Your task to perform on an android device: turn off sleep mode Image 0: 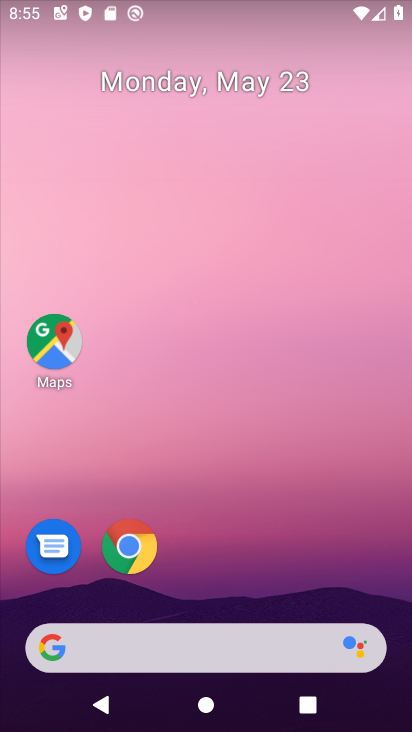
Step 0: drag from (392, 609) to (340, 21)
Your task to perform on an android device: turn off sleep mode Image 1: 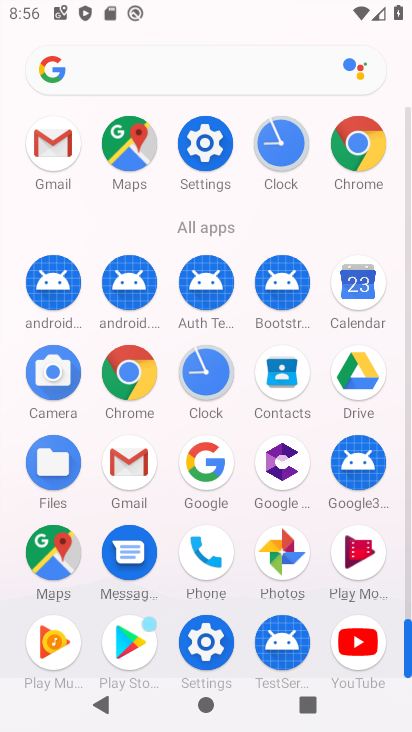
Step 1: click (208, 639)
Your task to perform on an android device: turn off sleep mode Image 2: 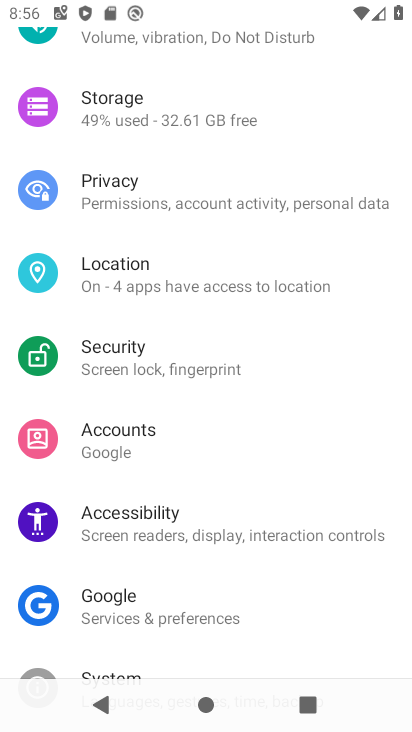
Step 2: drag from (325, 235) to (283, 562)
Your task to perform on an android device: turn off sleep mode Image 3: 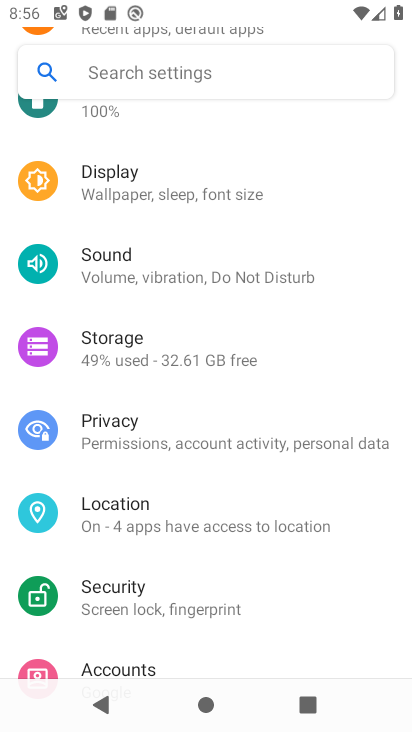
Step 3: click (141, 182)
Your task to perform on an android device: turn off sleep mode Image 4: 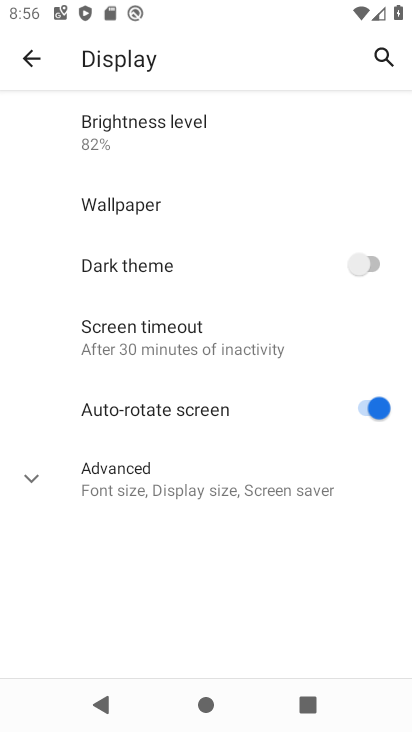
Step 4: click (28, 483)
Your task to perform on an android device: turn off sleep mode Image 5: 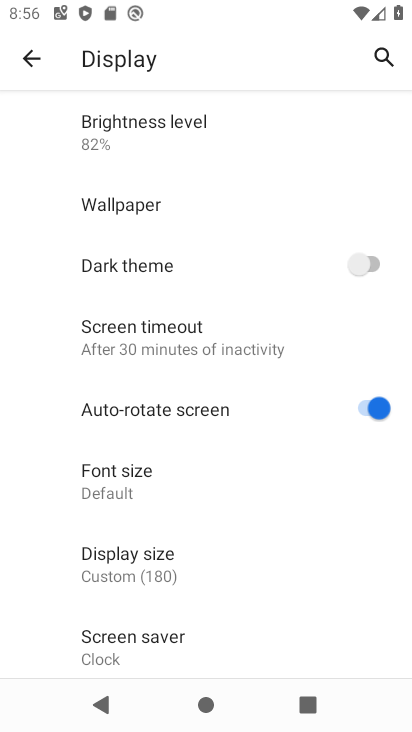
Step 5: task complete